Your task to perform on an android device: turn on showing notifications on the lock screen Image 0: 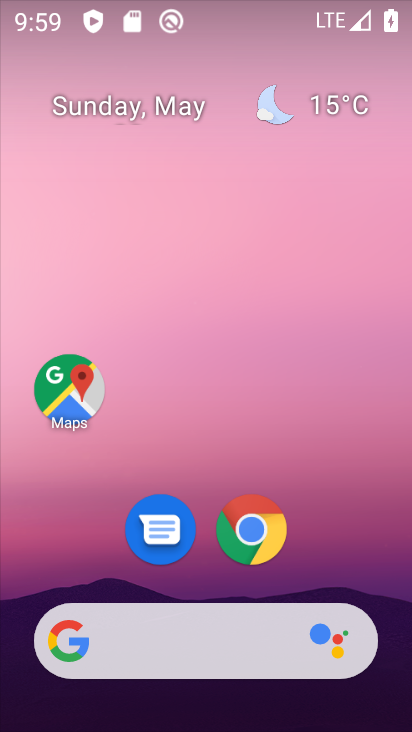
Step 0: drag from (324, 591) to (320, 11)
Your task to perform on an android device: turn on showing notifications on the lock screen Image 1: 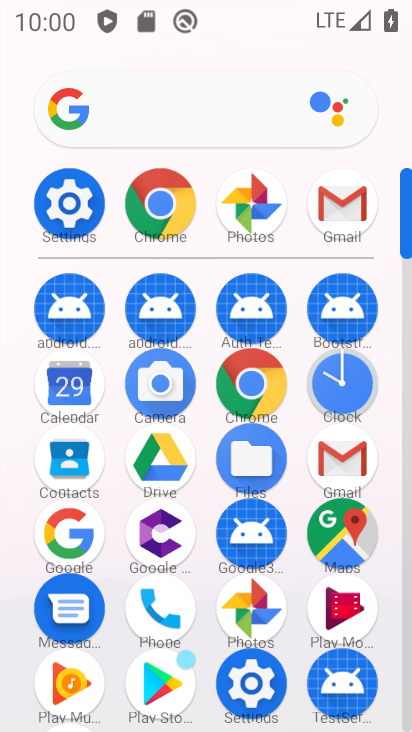
Step 1: click (81, 204)
Your task to perform on an android device: turn on showing notifications on the lock screen Image 2: 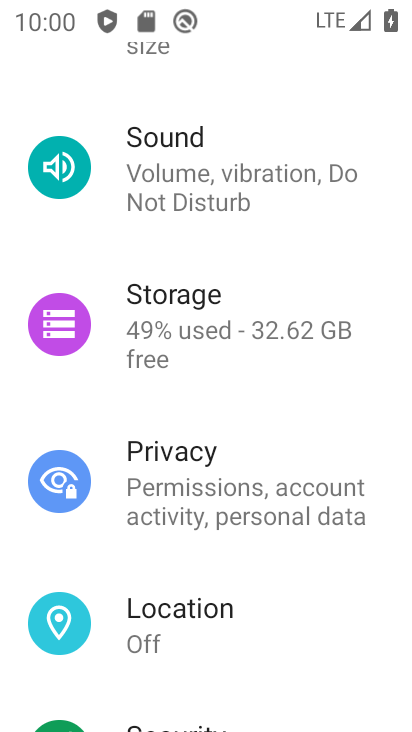
Step 2: drag from (238, 212) to (246, 537)
Your task to perform on an android device: turn on showing notifications on the lock screen Image 3: 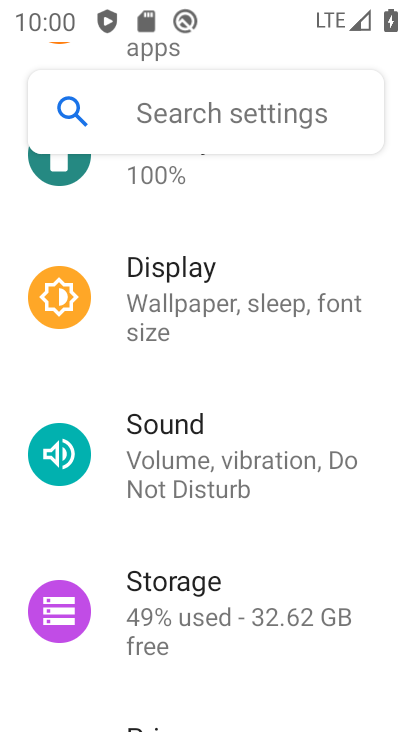
Step 3: drag from (402, 349) to (336, 487)
Your task to perform on an android device: turn on showing notifications on the lock screen Image 4: 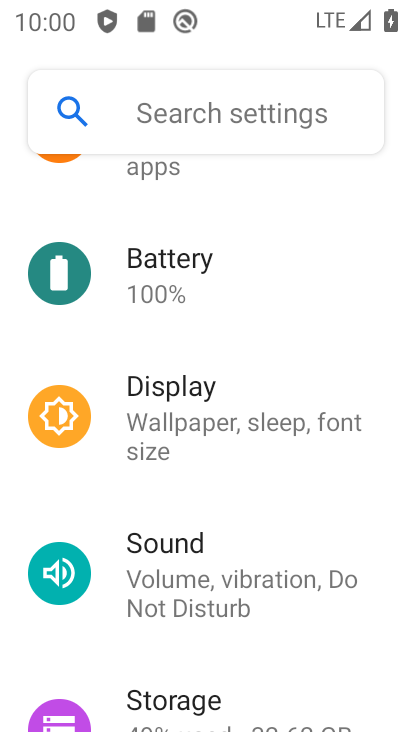
Step 4: drag from (331, 264) to (309, 574)
Your task to perform on an android device: turn on showing notifications on the lock screen Image 5: 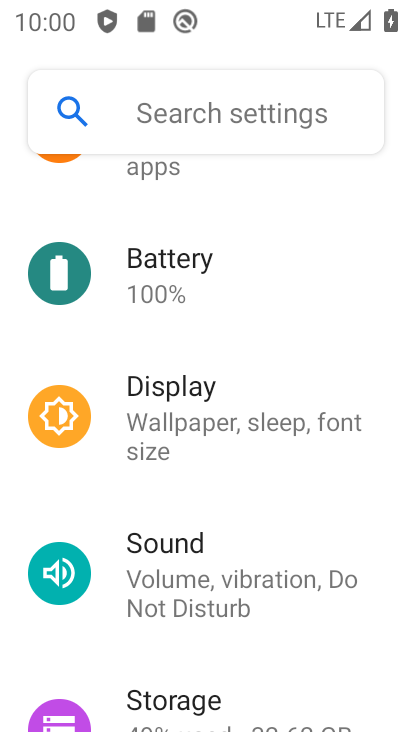
Step 5: drag from (244, 243) to (173, 658)
Your task to perform on an android device: turn on showing notifications on the lock screen Image 6: 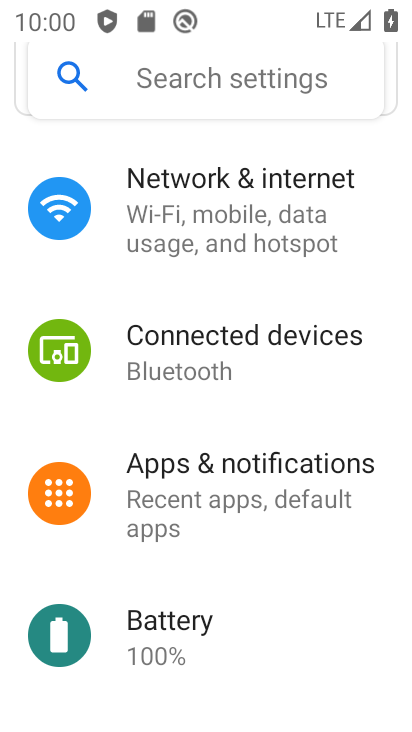
Step 6: click (339, 487)
Your task to perform on an android device: turn on showing notifications on the lock screen Image 7: 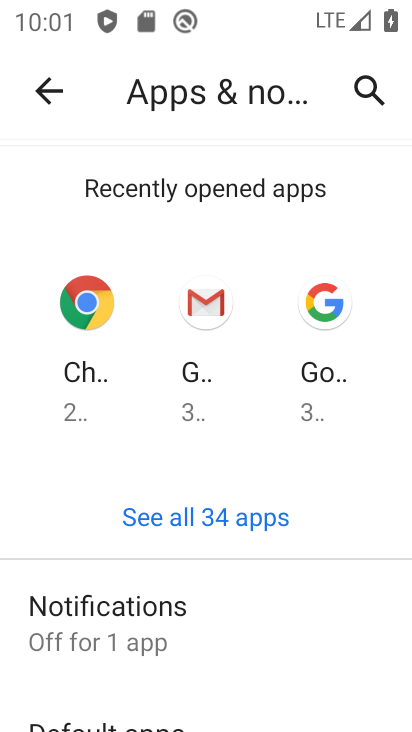
Step 7: drag from (160, 699) to (113, 416)
Your task to perform on an android device: turn on showing notifications on the lock screen Image 8: 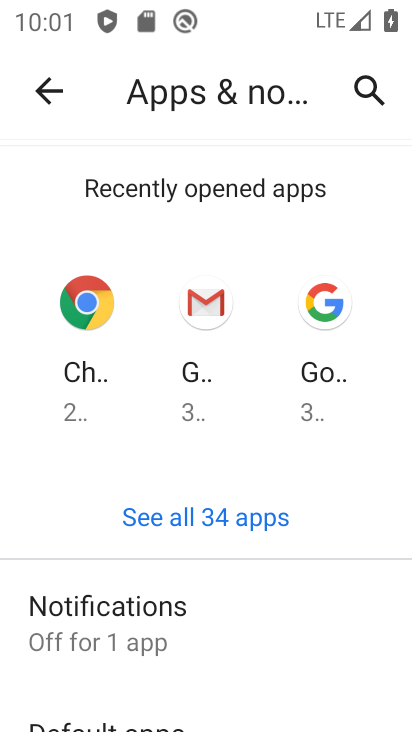
Step 8: click (103, 596)
Your task to perform on an android device: turn on showing notifications on the lock screen Image 9: 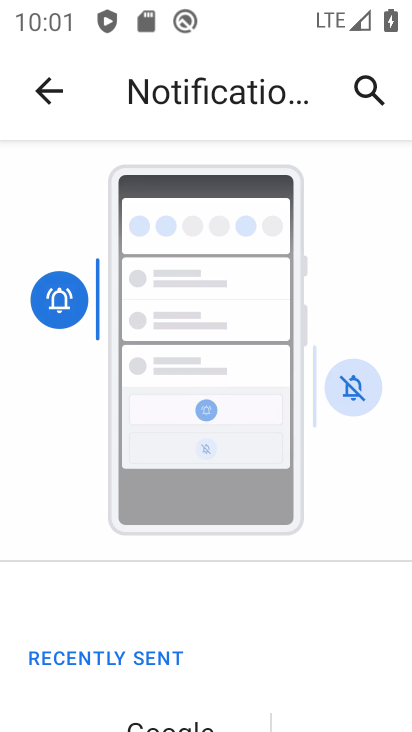
Step 9: drag from (113, 697) to (128, 184)
Your task to perform on an android device: turn on showing notifications on the lock screen Image 10: 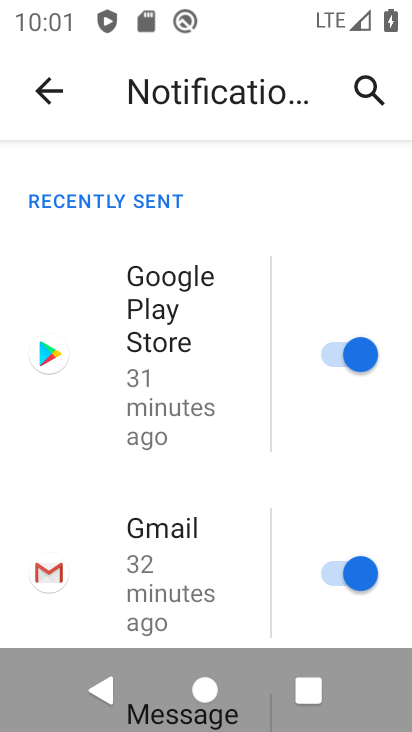
Step 10: drag from (124, 584) to (123, 28)
Your task to perform on an android device: turn on showing notifications on the lock screen Image 11: 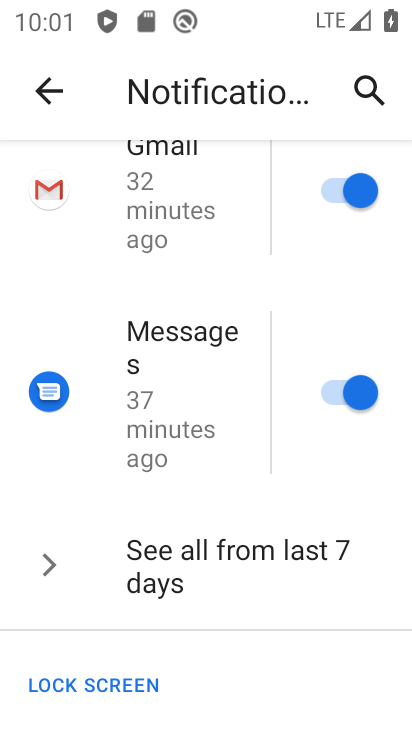
Step 11: drag from (160, 658) to (185, 251)
Your task to perform on an android device: turn on showing notifications on the lock screen Image 12: 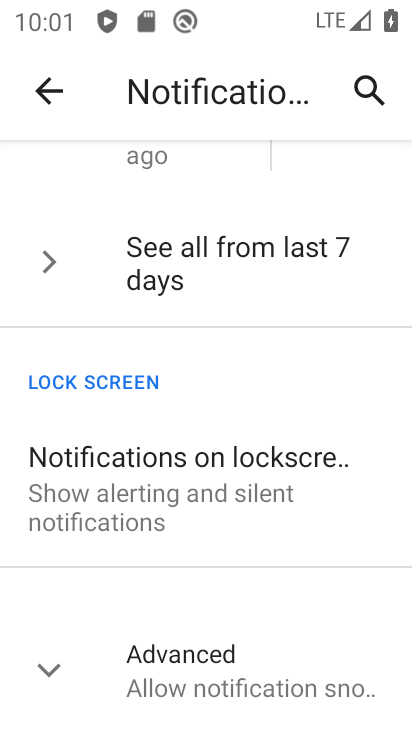
Step 12: click (190, 492)
Your task to perform on an android device: turn on showing notifications on the lock screen Image 13: 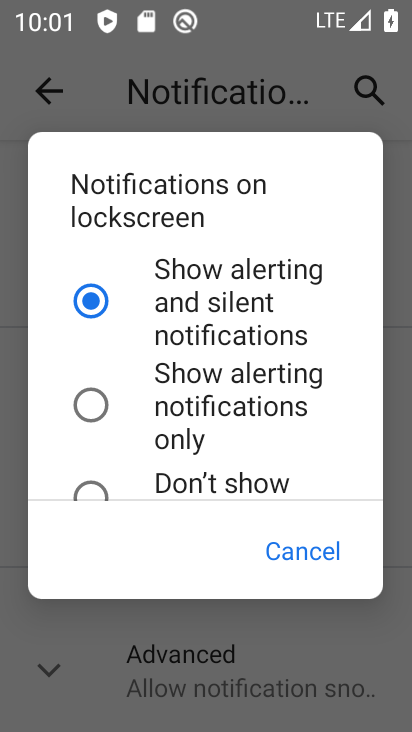
Step 13: task complete